Your task to perform on an android device: Open calendar and show me the first week of next month Image 0: 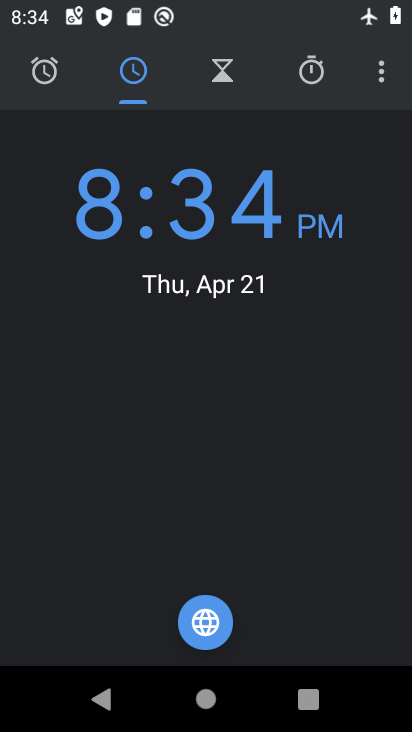
Step 0: press home button
Your task to perform on an android device: Open calendar and show me the first week of next month Image 1: 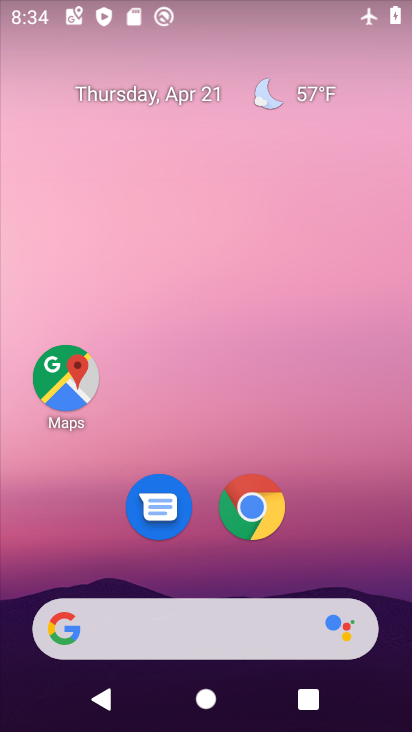
Step 1: drag from (380, 560) to (348, 15)
Your task to perform on an android device: Open calendar and show me the first week of next month Image 2: 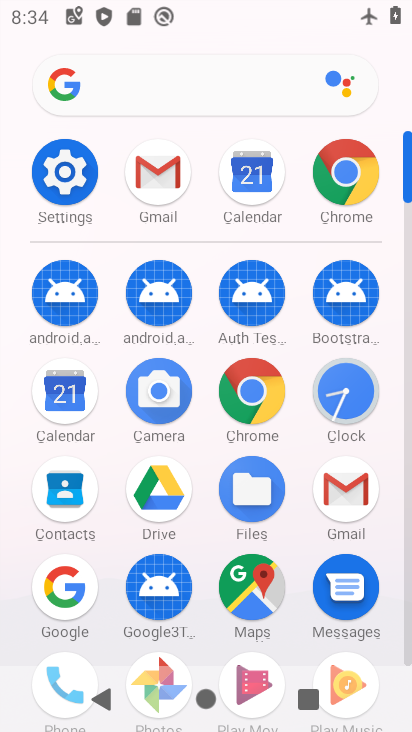
Step 2: click (64, 395)
Your task to perform on an android device: Open calendar and show me the first week of next month Image 3: 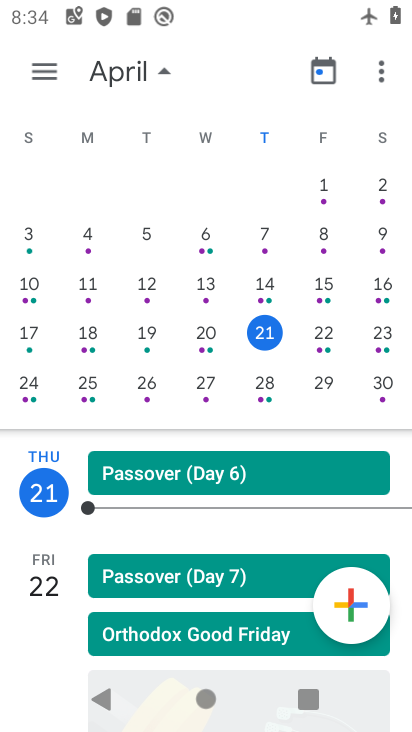
Step 3: task complete